Your task to perform on an android device: Add "macbook pro 13 inch" to the cart on costco Image 0: 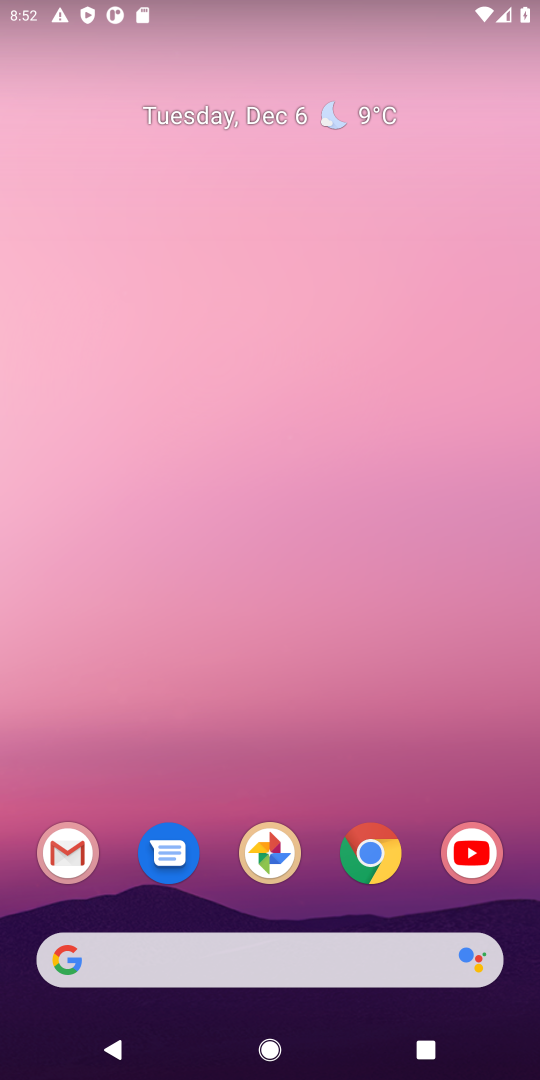
Step 0: click (376, 852)
Your task to perform on an android device: Add "macbook pro 13 inch" to the cart on costco Image 1: 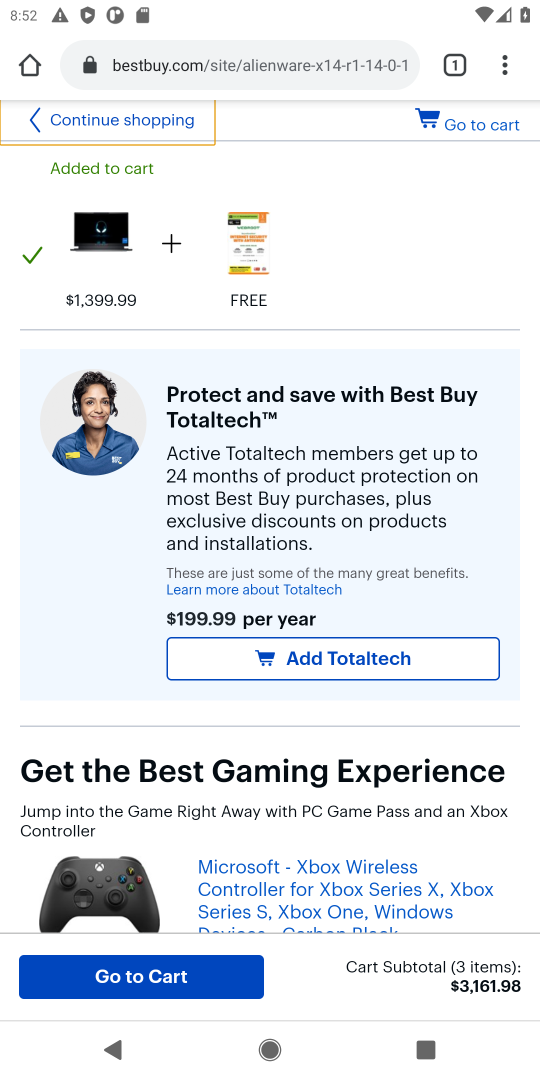
Step 1: click (191, 68)
Your task to perform on an android device: Add "macbook pro 13 inch" to the cart on costco Image 2: 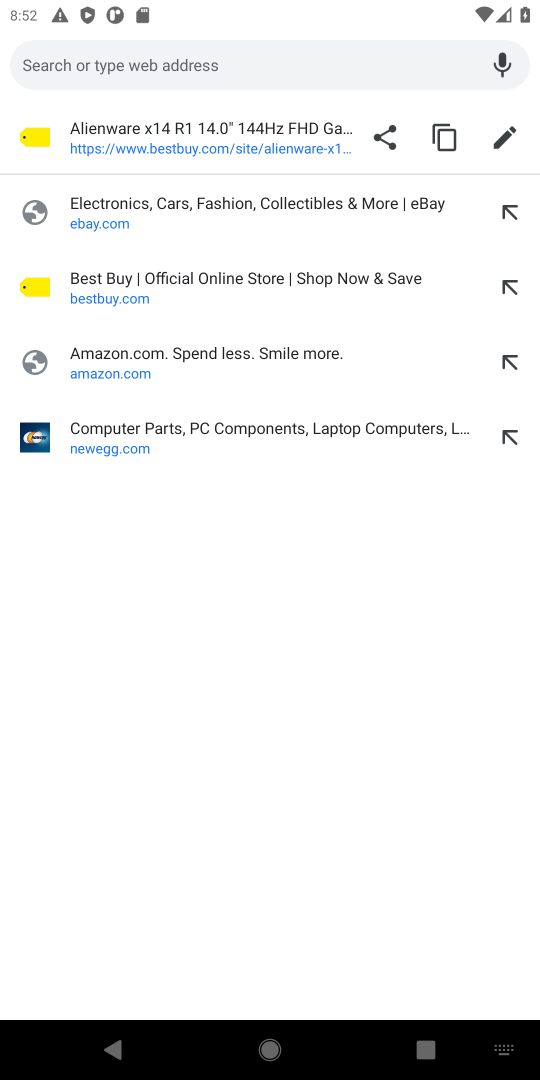
Step 2: type "costco"
Your task to perform on an android device: Add "macbook pro 13 inch" to the cart on costco Image 3: 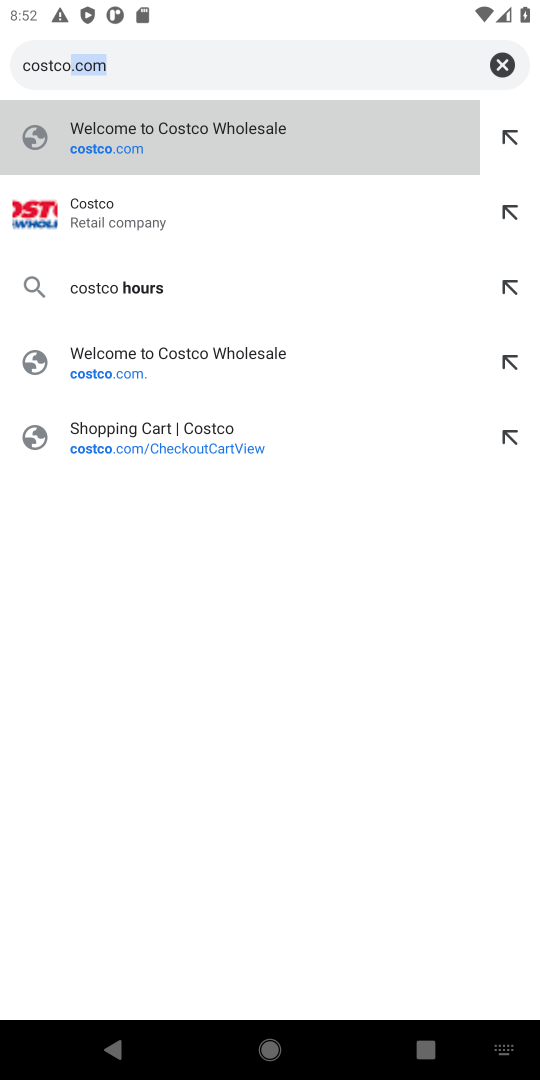
Step 3: click (155, 210)
Your task to perform on an android device: Add "macbook pro 13 inch" to the cart on costco Image 4: 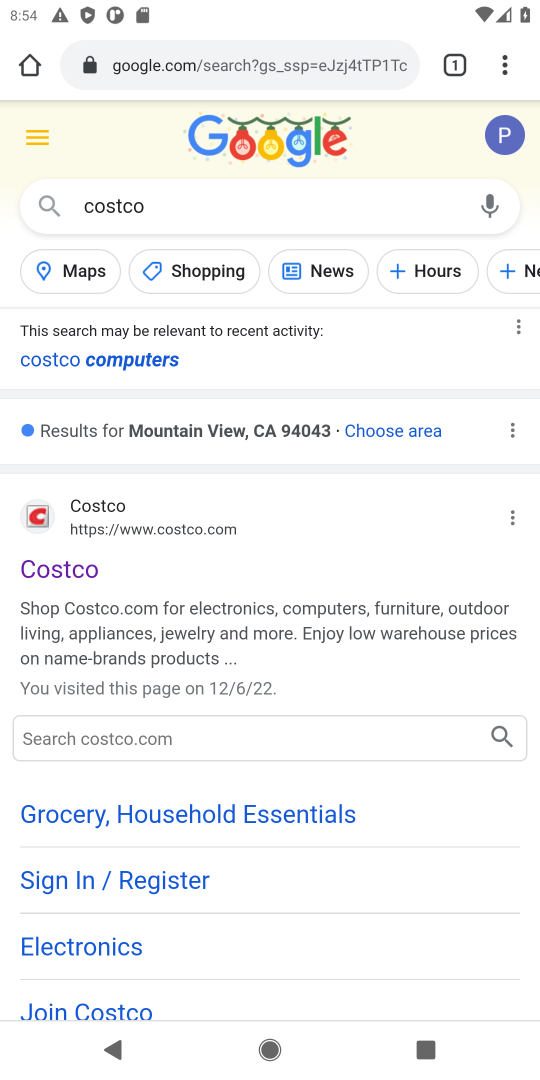
Step 4: click (64, 570)
Your task to perform on an android device: Add "macbook pro 13 inch" to the cart on costco Image 5: 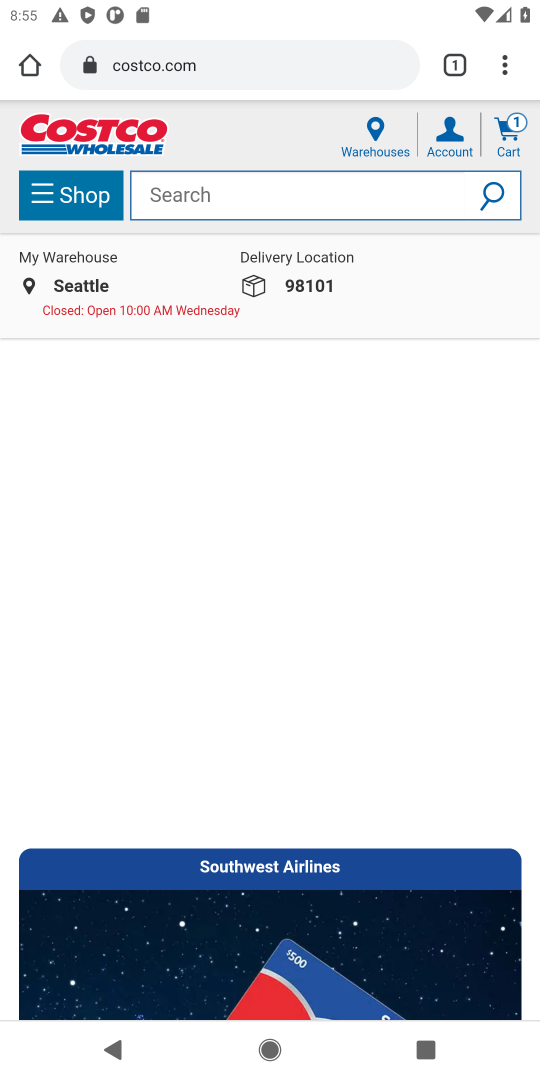
Step 5: click (313, 201)
Your task to perform on an android device: Add "macbook pro 13 inch" to the cart on costco Image 6: 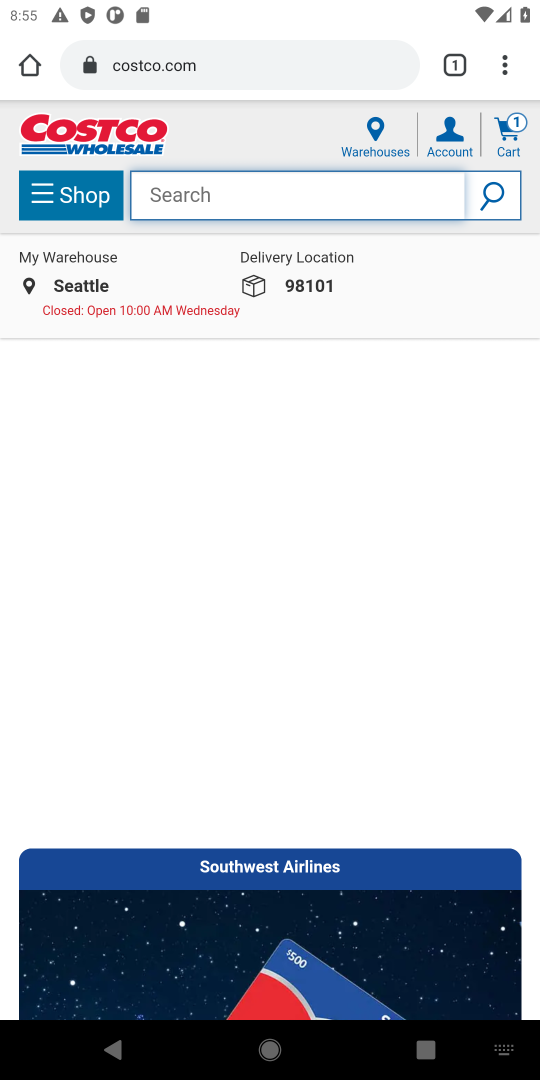
Step 6: type "macbook pro 13 inch"
Your task to perform on an android device: Add "macbook pro 13 inch" to the cart on costco Image 7: 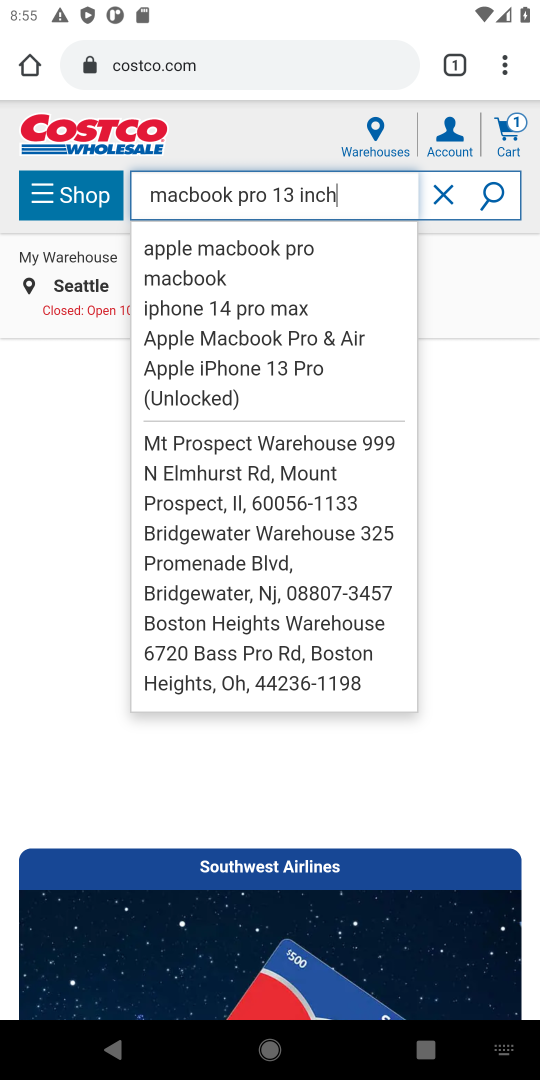
Step 7: click (233, 250)
Your task to perform on an android device: Add "macbook pro 13 inch" to the cart on costco Image 8: 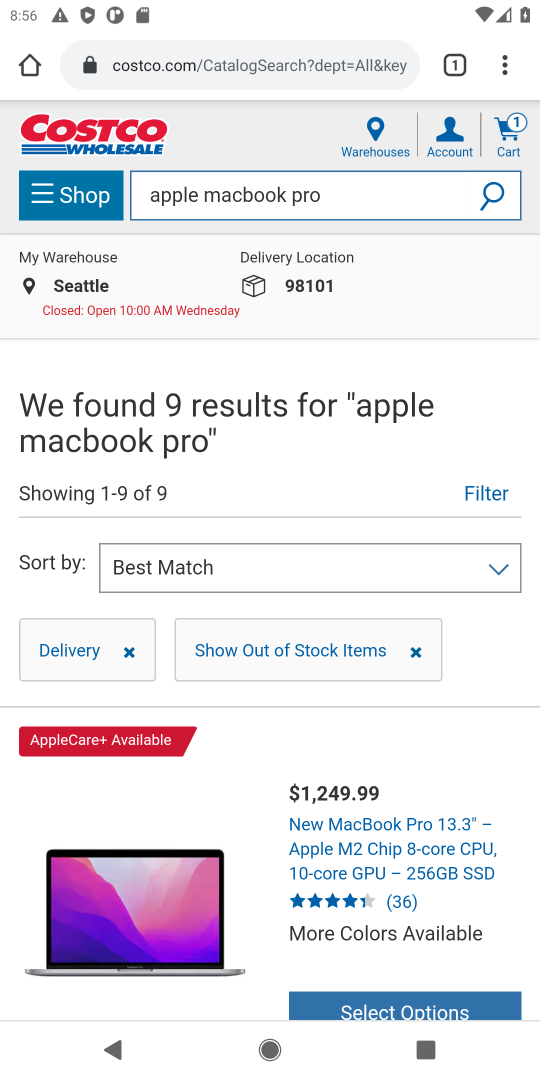
Step 8: click (204, 949)
Your task to perform on an android device: Add "macbook pro 13 inch" to the cart on costco Image 9: 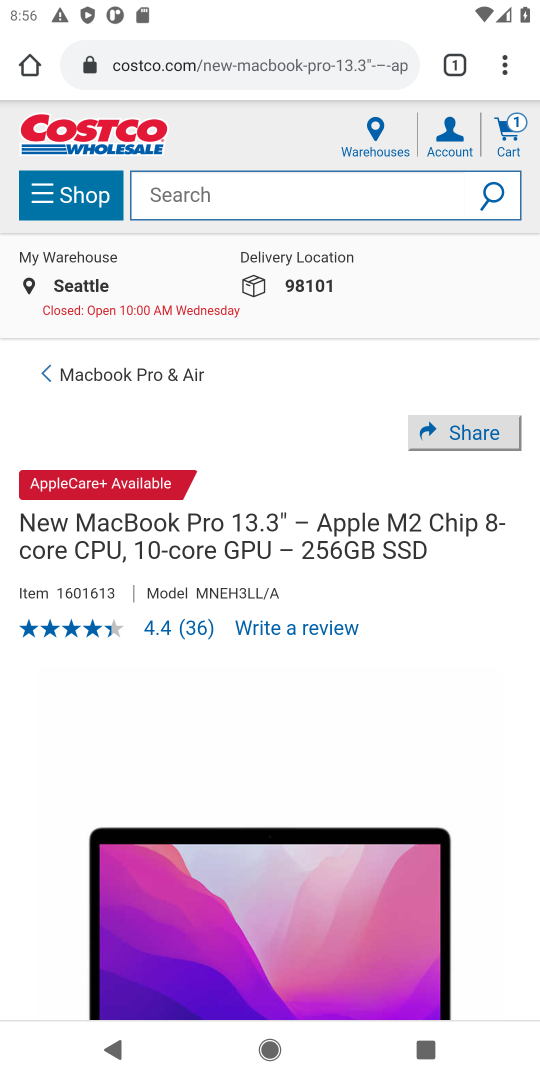
Step 9: drag from (324, 915) to (268, 156)
Your task to perform on an android device: Add "macbook pro 13 inch" to the cart on costco Image 10: 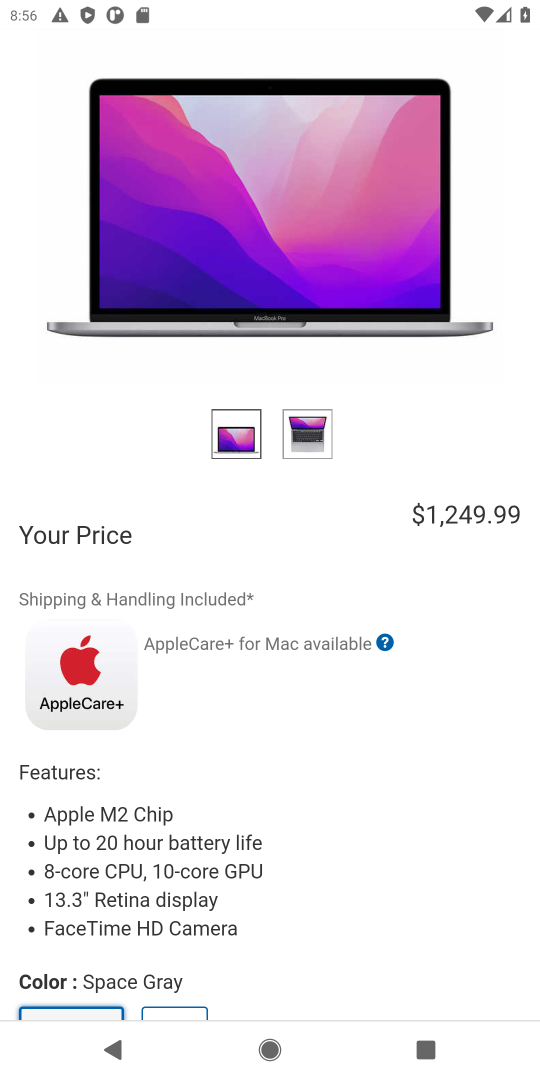
Step 10: drag from (437, 925) to (357, 187)
Your task to perform on an android device: Add "macbook pro 13 inch" to the cart on costco Image 11: 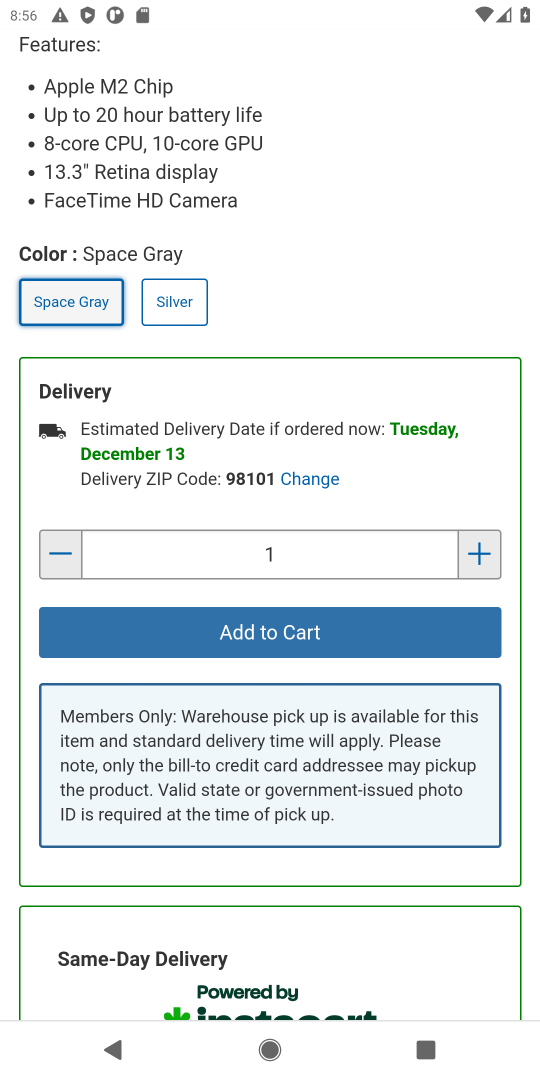
Step 11: click (237, 633)
Your task to perform on an android device: Add "macbook pro 13 inch" to the cart on costco Image 12: 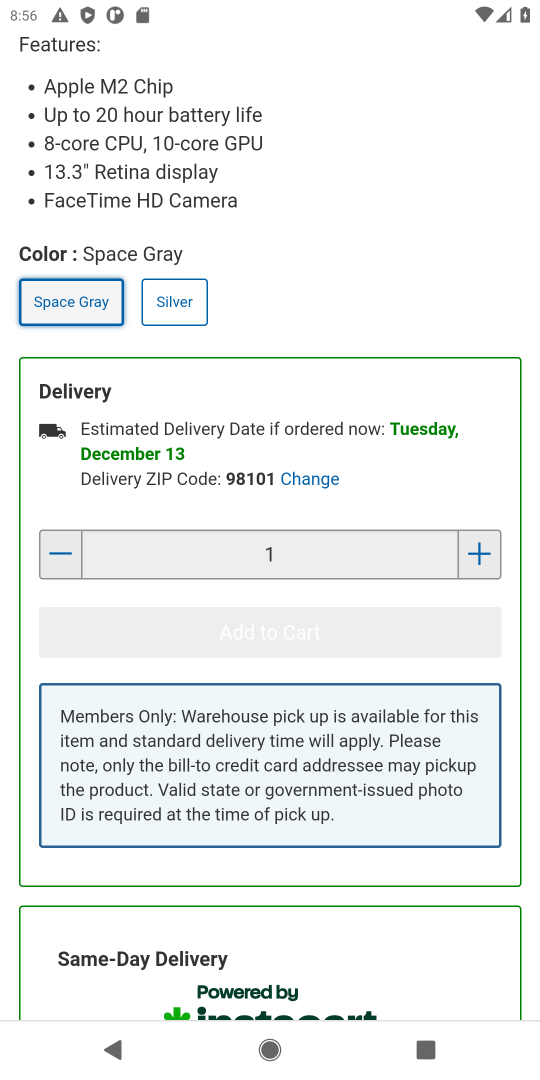
Step 12: task complete